Your task to perform on an android device: check storage Image 0: 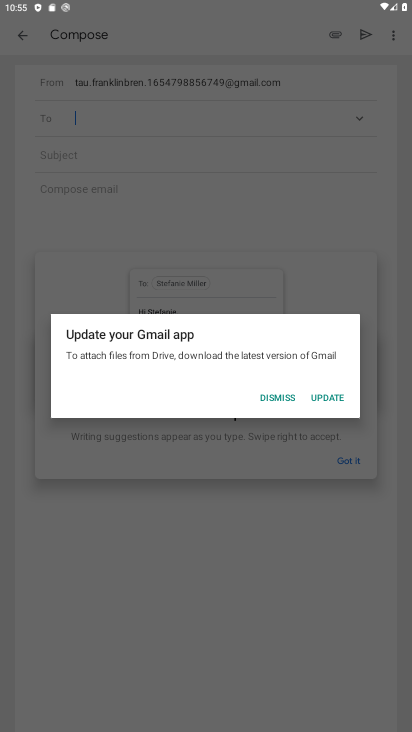
Step 0: press home button
Your task to perform on an android device: check storage Image 1: 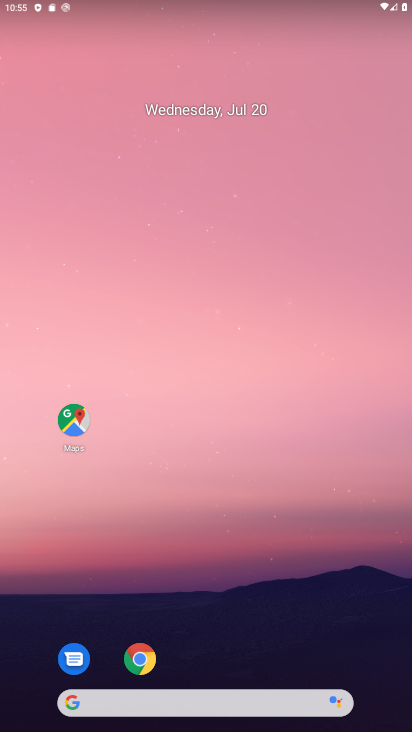
Step 1: drag from (241, 623) to (245, 430)
Your task to perform on an android device: check storage Image 2: 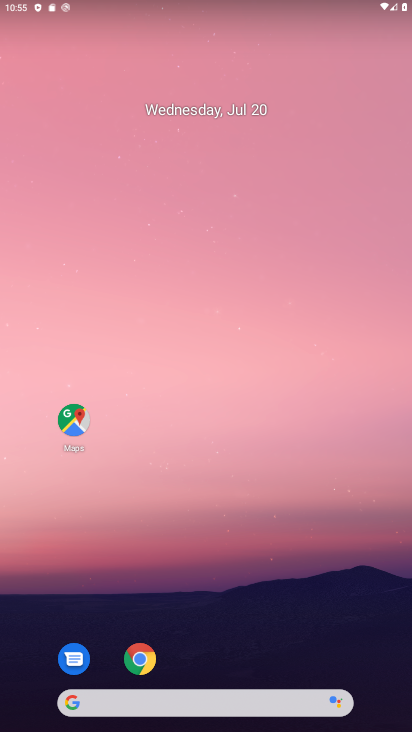
Step 2: drag from (241, 688) to (244, 478)
Your task to perform on an android device: check storage Image 3: 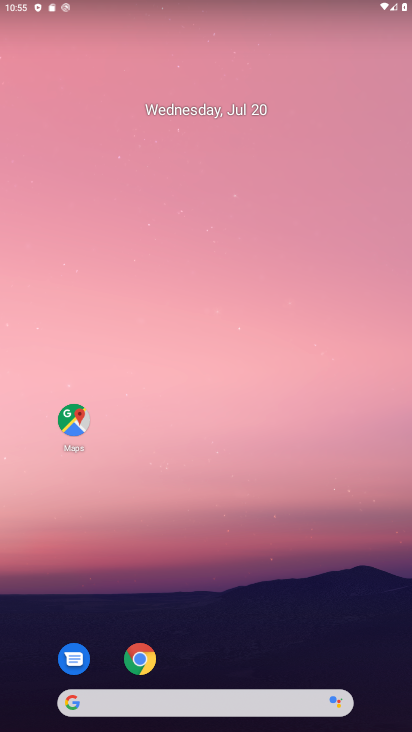
Step 3: drag from (211, 665) to (292, 7)
Your task to perform on an android device: check storage Image 4: 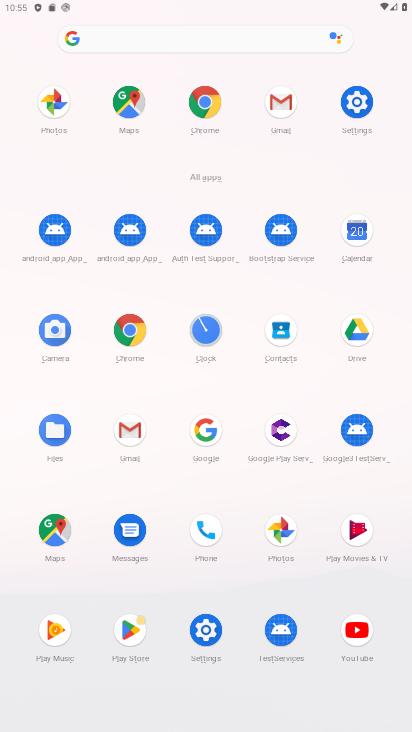
Step 4: click (359, 107)
Your task to perform on an android device: check storage Image 5: 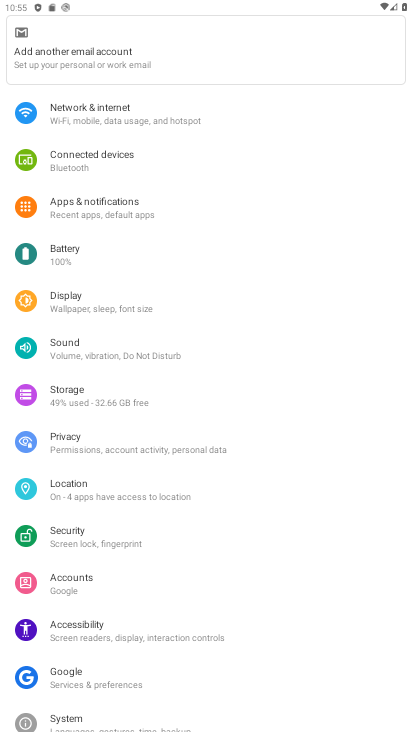
Step 5: click (81, 393)
Your task to perform on an android device: check storage Image 6: 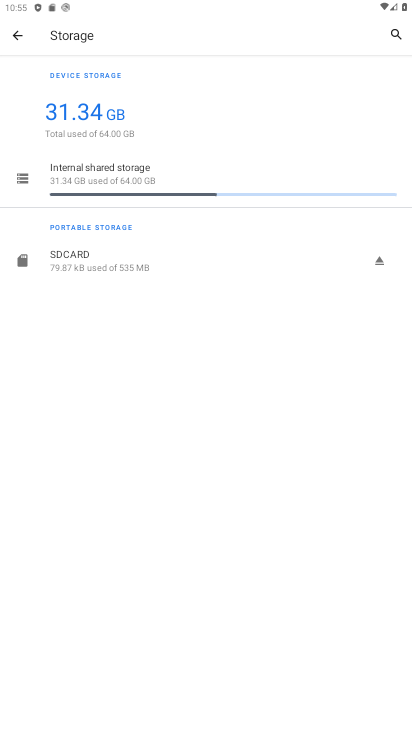
Step 6: click (112, 190)
Your task to perform on an android device: check storage Image 7: 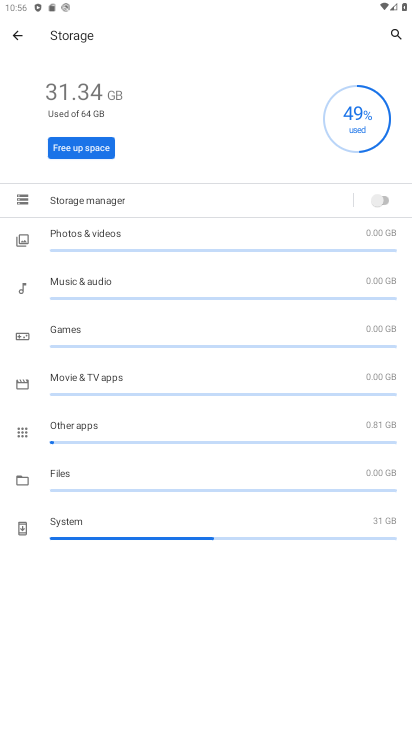
Step 7: task complete